Your task to perform on an android device: change the clock display to digital Image 0: 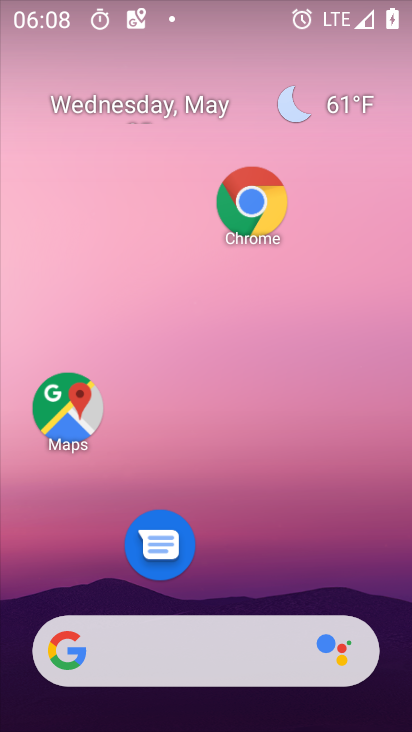
Step 0: drag from (251, 609) to (191, 191)
Your task to perform on an android device: change the clock display to digital Image 1: 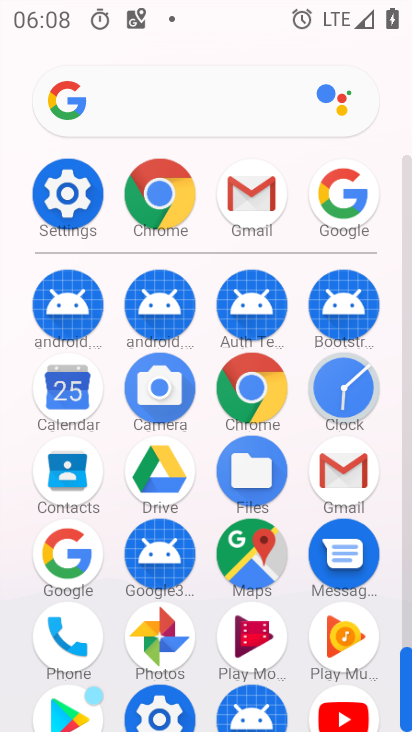
Step 1: click (342, 387)
Your task to perform on an android device: change the clock display to digital Image 2: 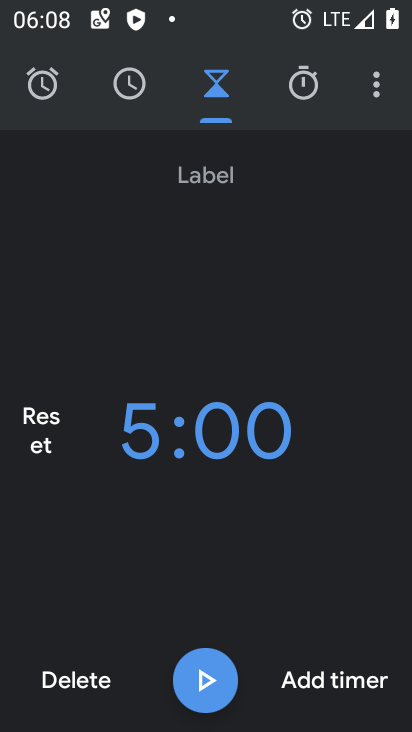
Step 2: click (377, 90)
Your task to perform on an android device: change the clock display to digital Image 3: 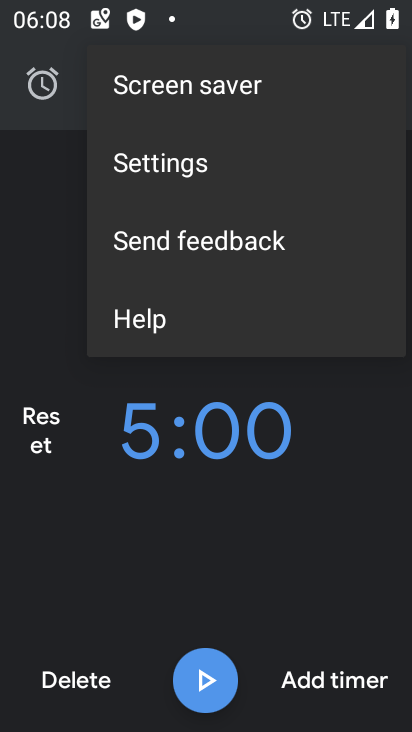
Step 3: click (140, 158)
Your task to perform on an android device: change the clock display to digital Image 4: 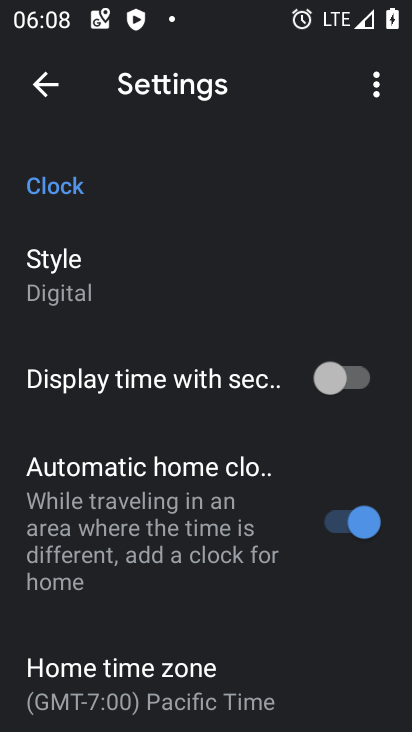
Step 4: task complete